Your task to perform on an android device: open device folders in google photos Image 0: 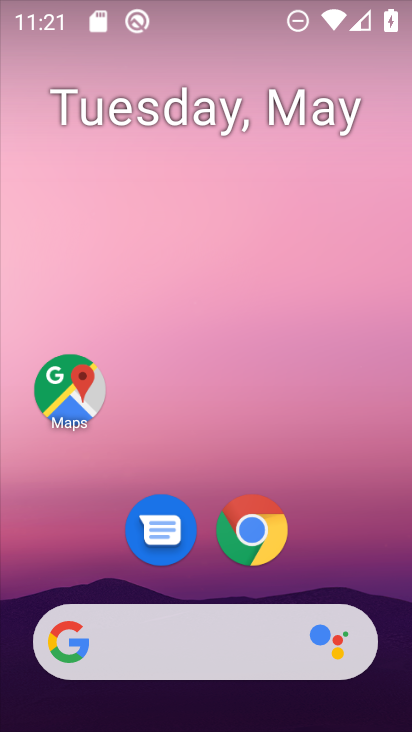
Step 0: drag from (326, 545) to (319, 172)
Your task to perform on an android device: open device folders in google photos Image 1: 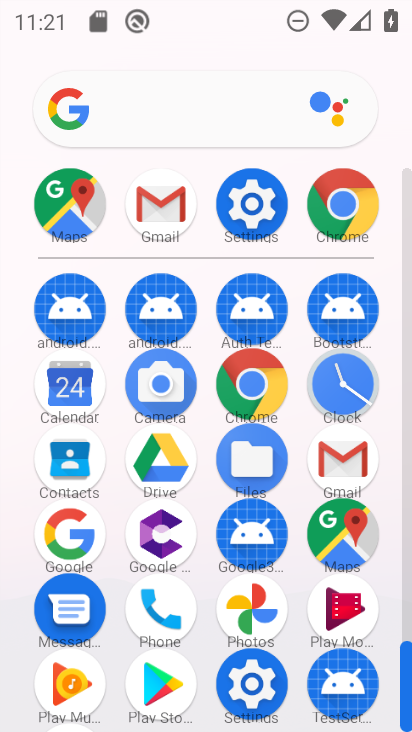
Step 1: click (250, 616)
Your task to perform on an android device: open device folders in google photos Image 2: 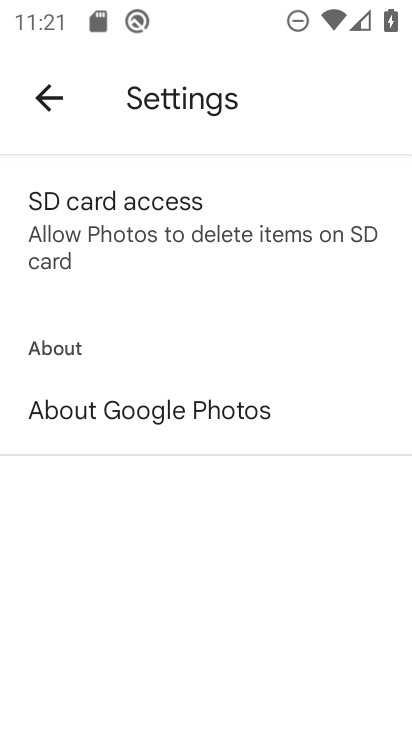
Step 2: click (55, 104)
Your task to perform on an android device: open device folders in google photos Image 3: 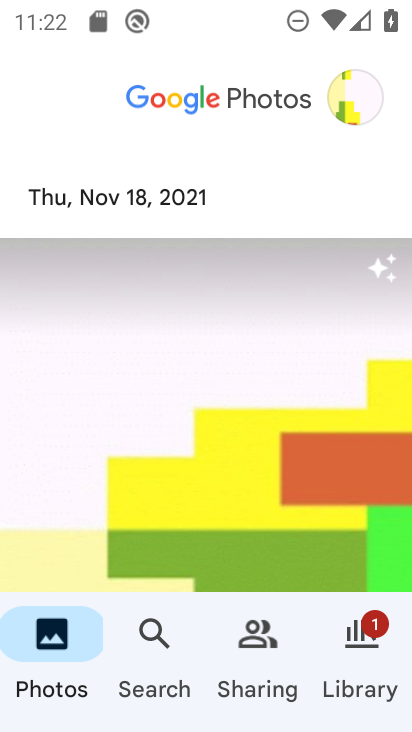
Step 3: click (361, 663)
Your task to perform on an android device: open device folders in google photos Image 4: 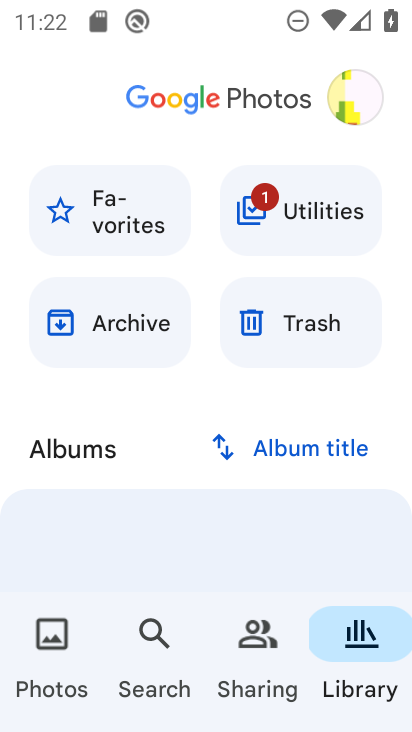
Step 4: click (303, 220)
Your task to perform on an android device: open device folders in google photos Image 5: 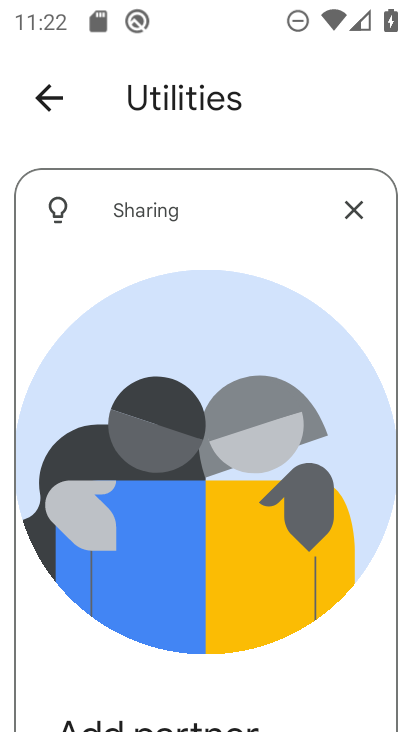
Step 5: drag from (214, 627) to (324, 148)
Your task to perform on an android device: open device folders in google photos Image 6: 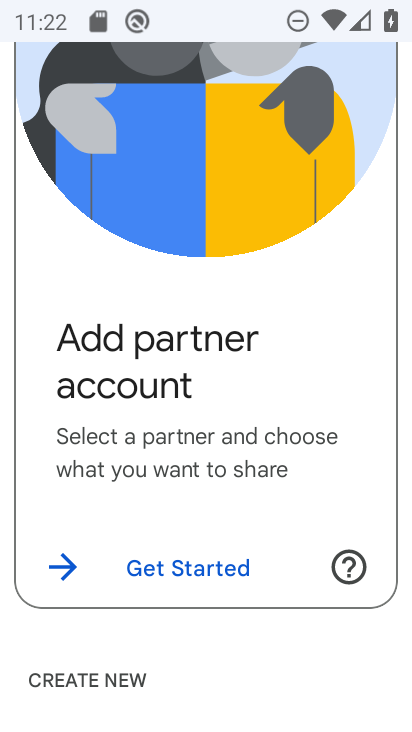
Step 6: drag from (267, 620) to (357, 180)
Your task to perform on an android device: open device folders in google photos Image 7: 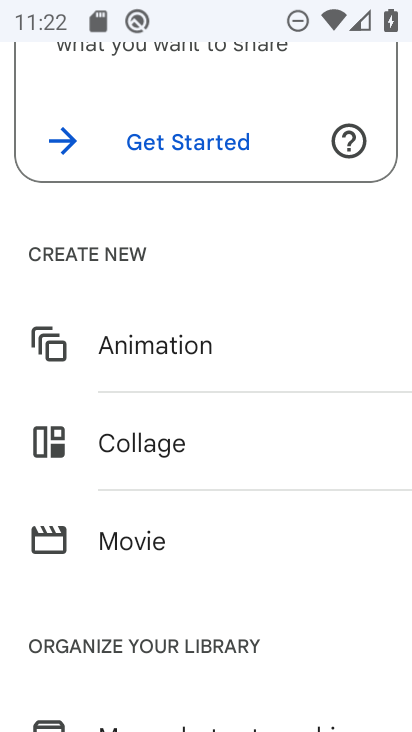
Step 7: drag from (234, 530) to (315, 200)
Your task to perform on an android device: open device folders in google photos Image 8: 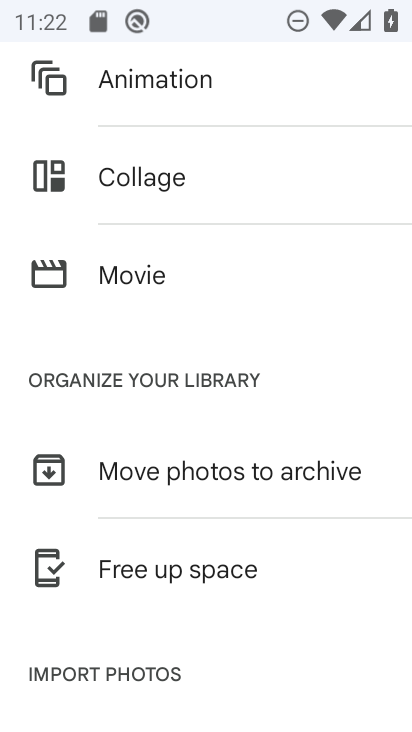
Step 8: drag from (157, 632) to (296, 281)
Your task to perform on an android device: open device folders in google photos Image 9: 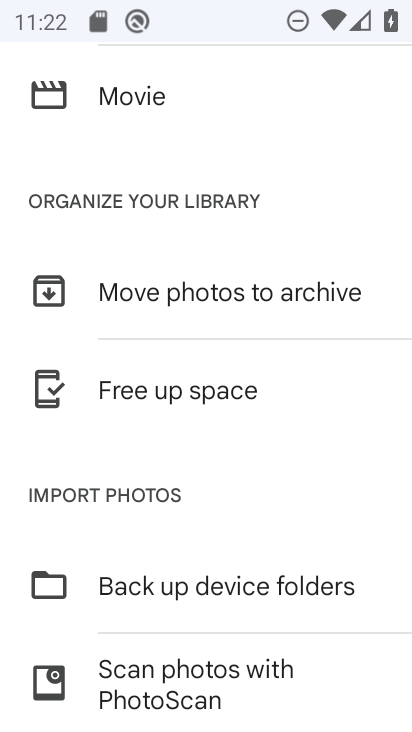
Step 9: click (206, 596)
Your task to perform on an android device: open device folders in google photos Image 10: 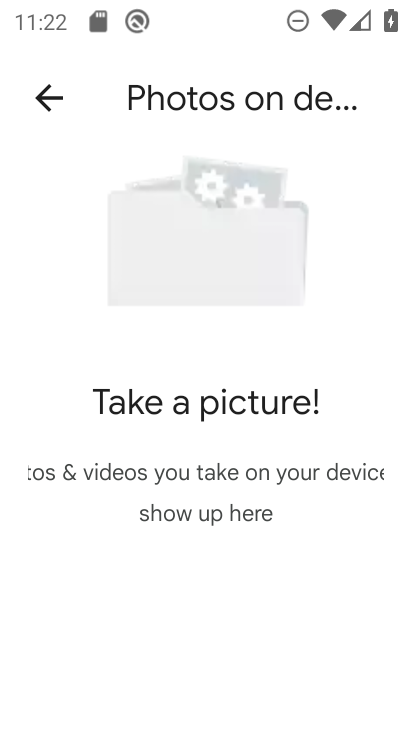
Step 10: task complete